Your task to perform on an android device: make emails show in primary in the gmail app Image 0: 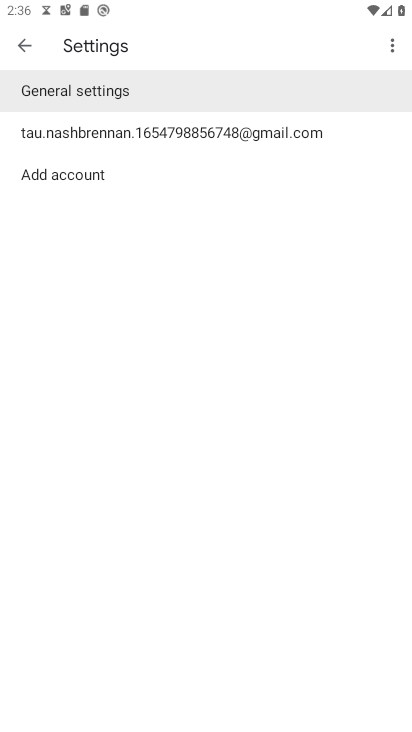
Step 0: press home button
Your task to perform on an android device: make emails show in primary in the gmail app Image 1: 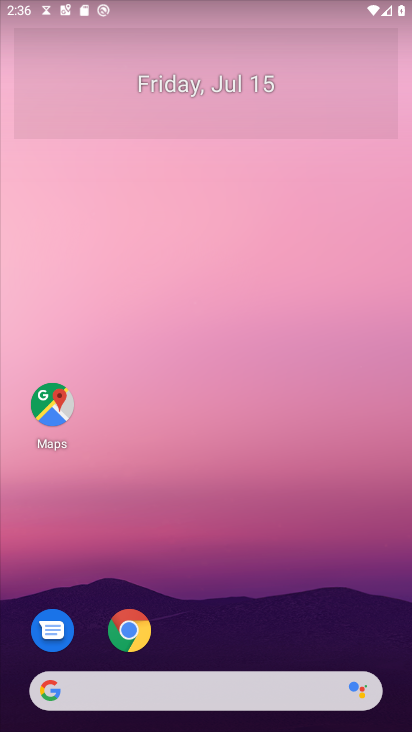
Step 1: drag from (205, 588) to (225, 10)
Your task to perform on an android device: make emails show in primary in the gmail app Image 2: 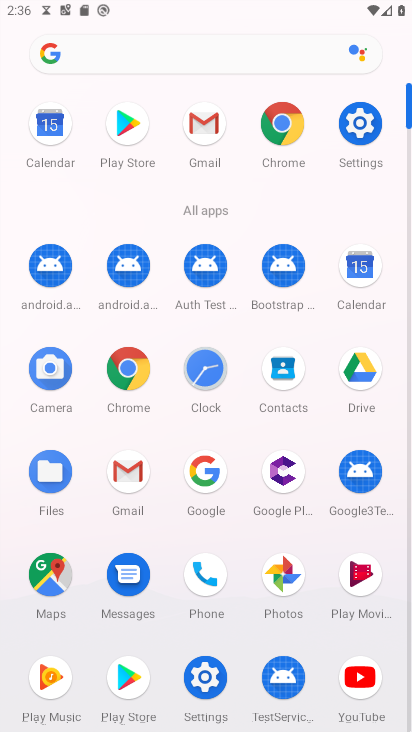
Step 2: click (192, 128)
Your task to perform on an android device: make emails show in primary in the gmail app Image 3: 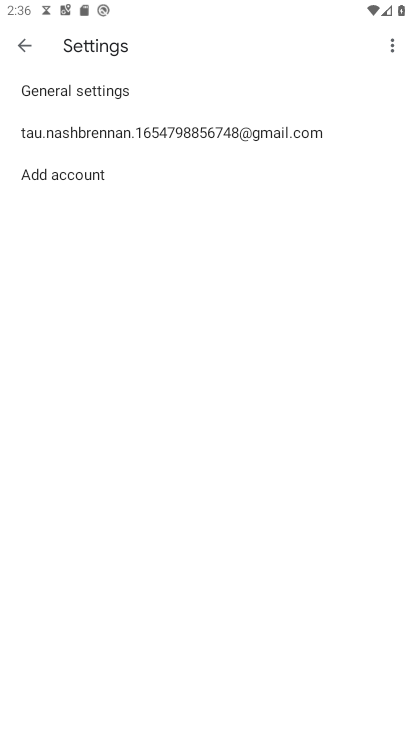
Step 3: click (40, 131)
Your task to perform on an android device: make emails show in primary in the gmail app Image 4: 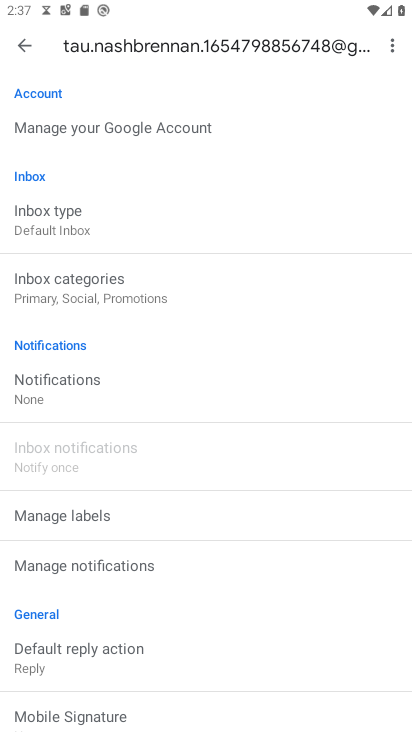
Step 4: task complete